Your task to perform on an android device: change notification settings in the gmail app Image 0: 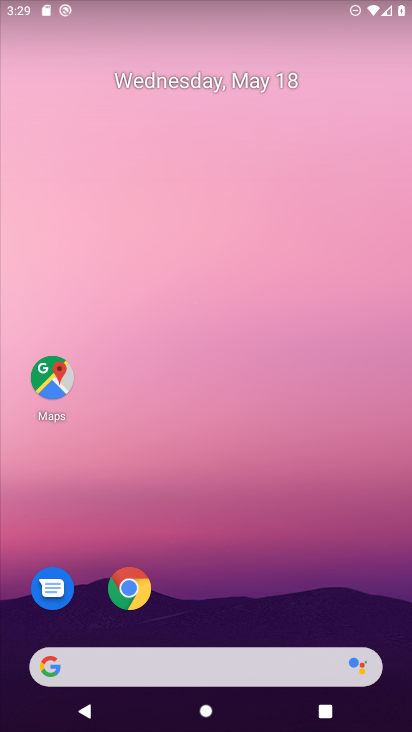
Step 0: drag from (244, 611) to (256, 179)
Your task to perform on an android device: change notification settings in the gmail app Image 1: 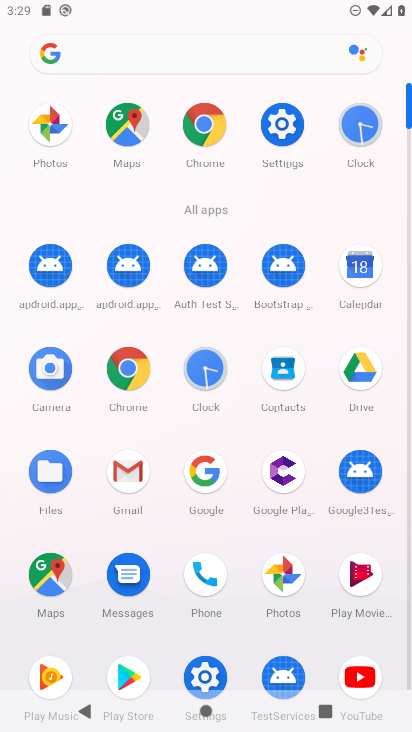
Step 1: click (136, 482)
Your task to perform on an android device: change notification settings in the gmail app Image 2: 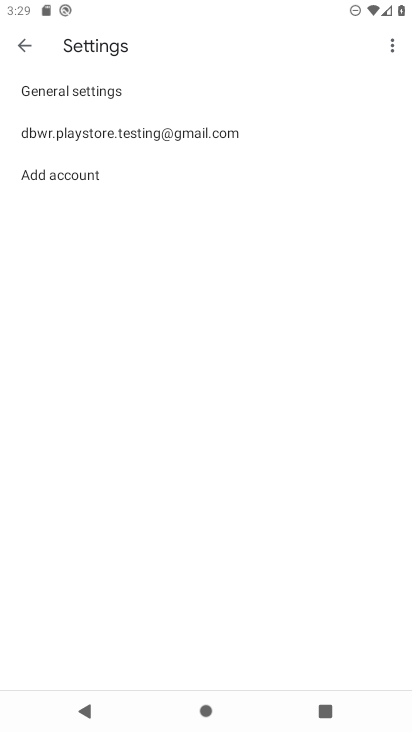
Step 2: click (63, 88)
Your task to perform on an android device: change notification settings in the gmail app Image 3: 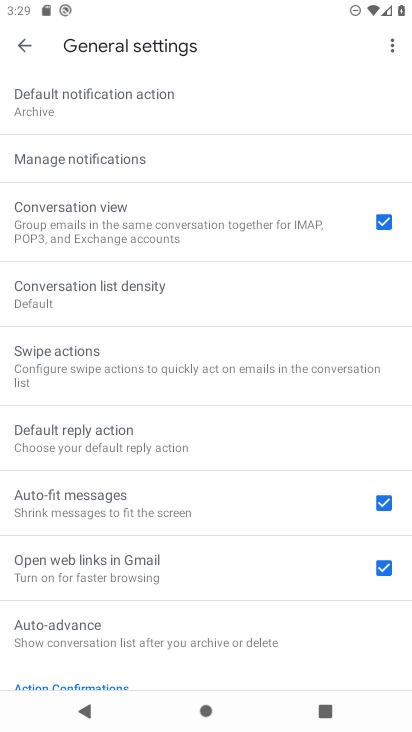
Step 3: click (69, 150)
Your task to perform on an android device: change notification settings in the gmail app Image 4: 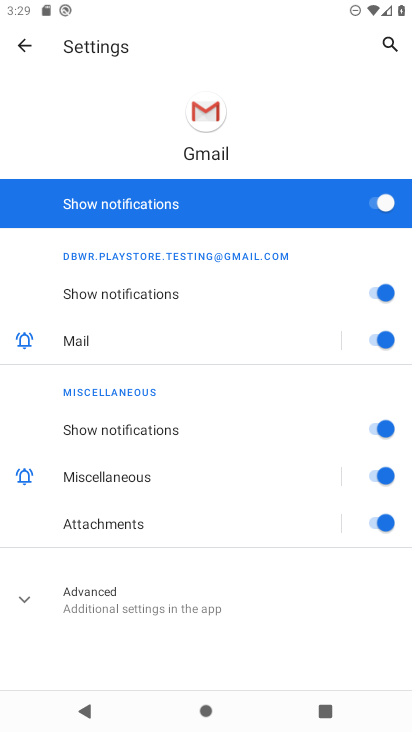
Step 4: click (187, 205)
Your task to perform on an android device: change notification settings in the gmail app Image 5: 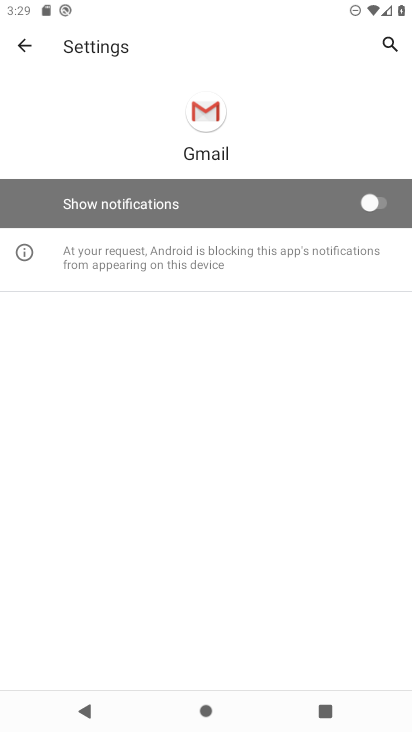
Step 5: task complete